Your task to perform on an android device: Search for flights from Seoul to Mexico city Image 0: 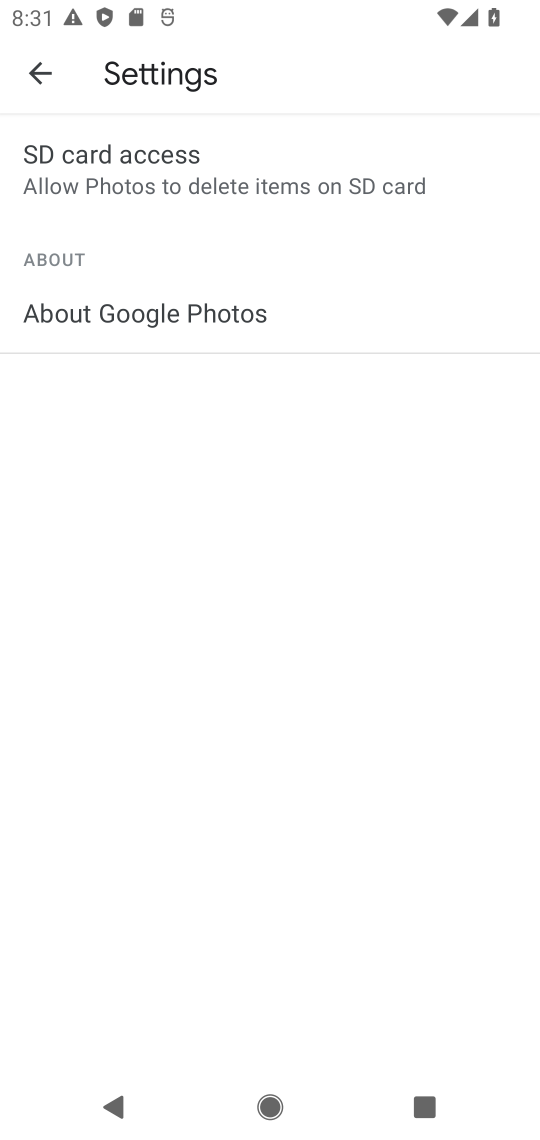
Step 0: press home button
Your task to perform on an android device: Search for flights from Seoul to Mexico city Image 1: 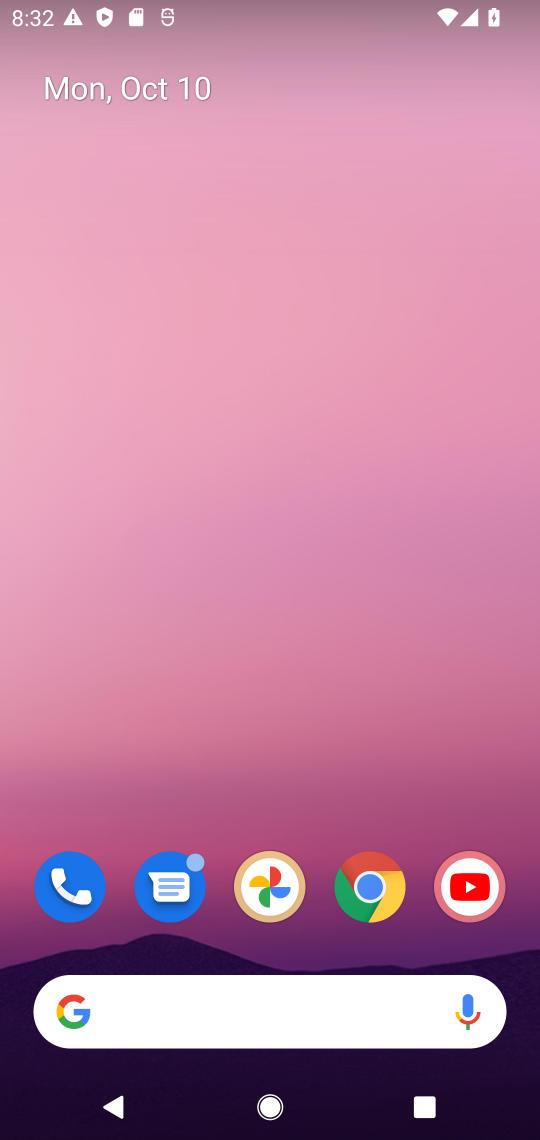
Step 1: click (375, 907)
Your task to perform on an android device: Search for flights from Seoul to Mexico city Image 2: 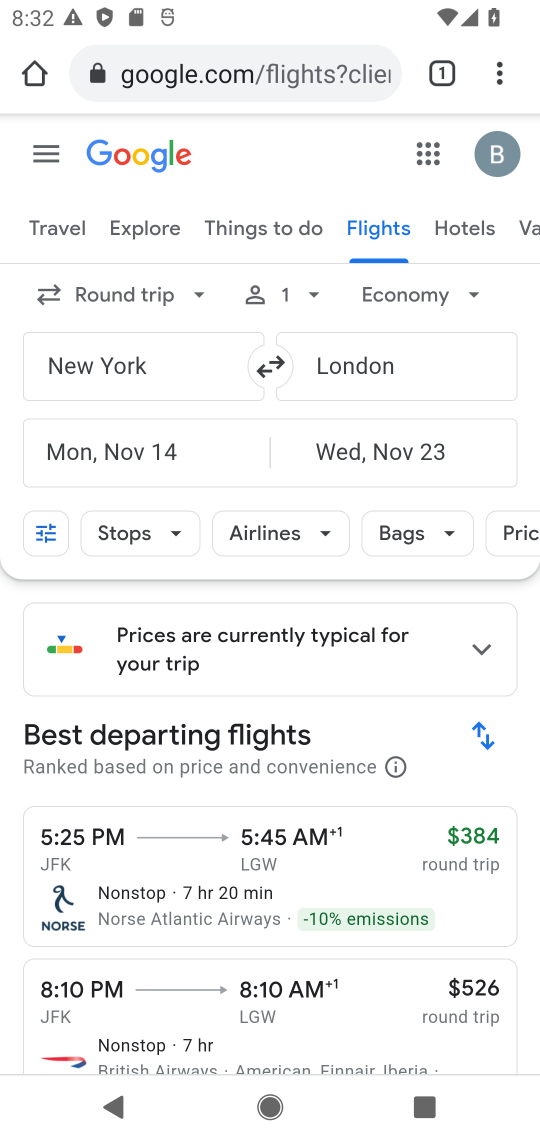
Step 2: click (282, 69)
Your task to perform on an android device: Search for flights from Seoul to Mexico city Image 3: 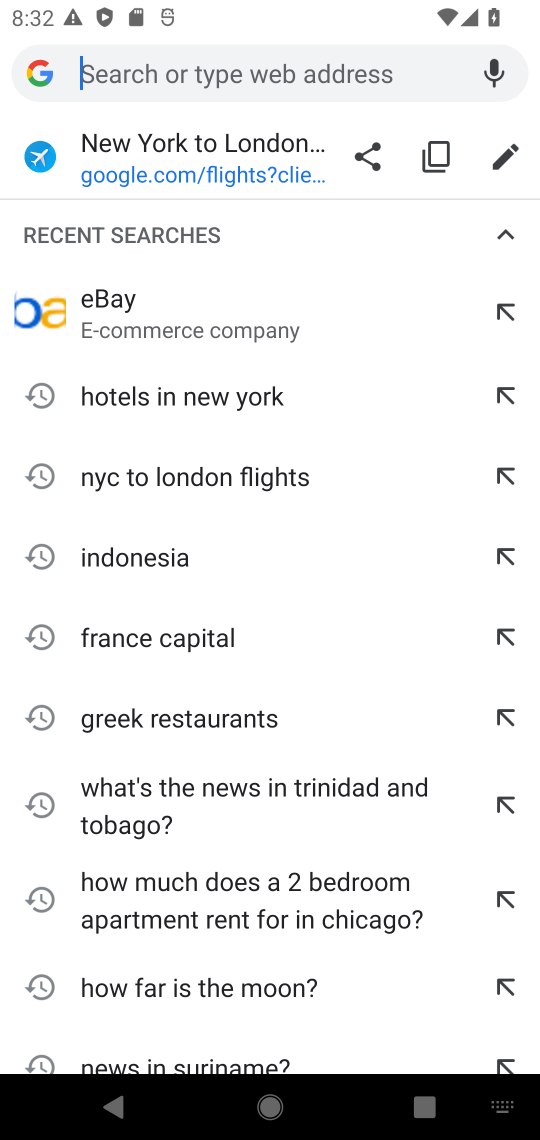
Step 3: type "seoul to mexico city flights"
Your task to perform on an android device: Search for flights from Seoul to Mexico city Image 4: 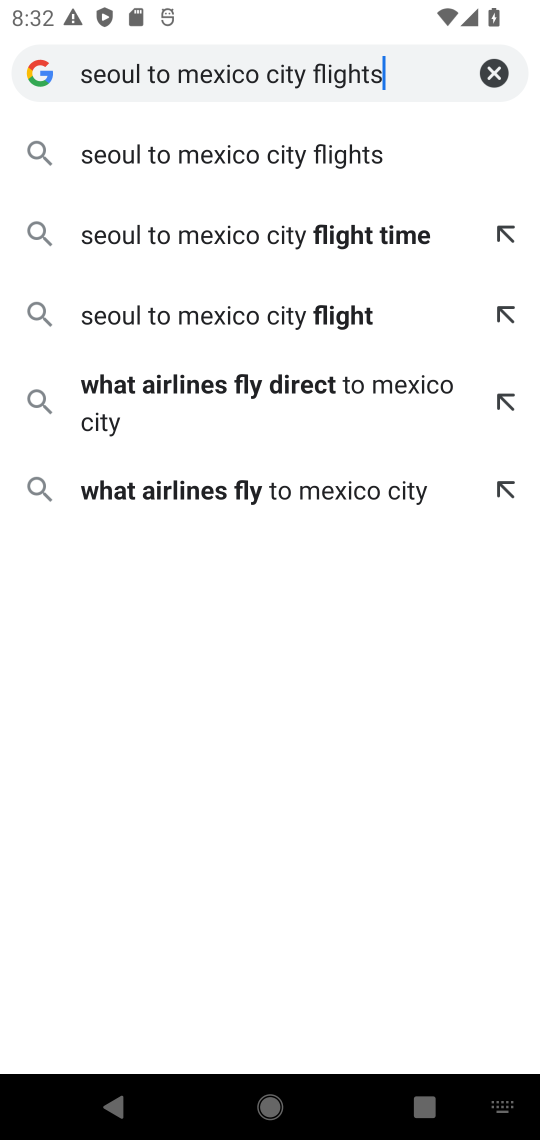
Step 4: click (390, 148)
Your task to perform on an android device: Search for flights from Seoul to Mexico city Image 5: 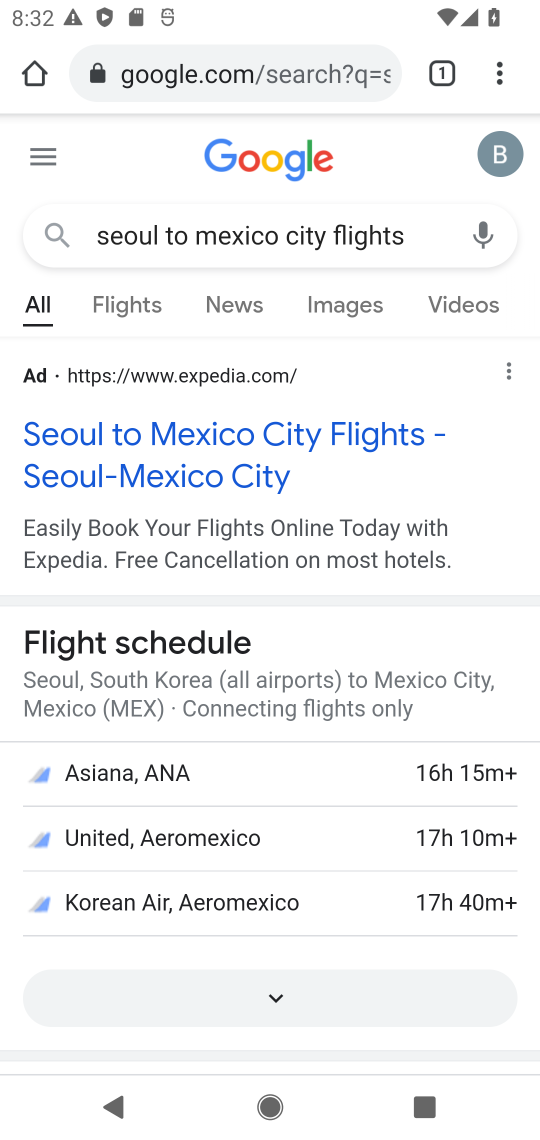
Step 5: drag from (304, 738) to (220, 333)
Your task to perform on an android device: Search for flights from Seoul to Mexico city Image 6: 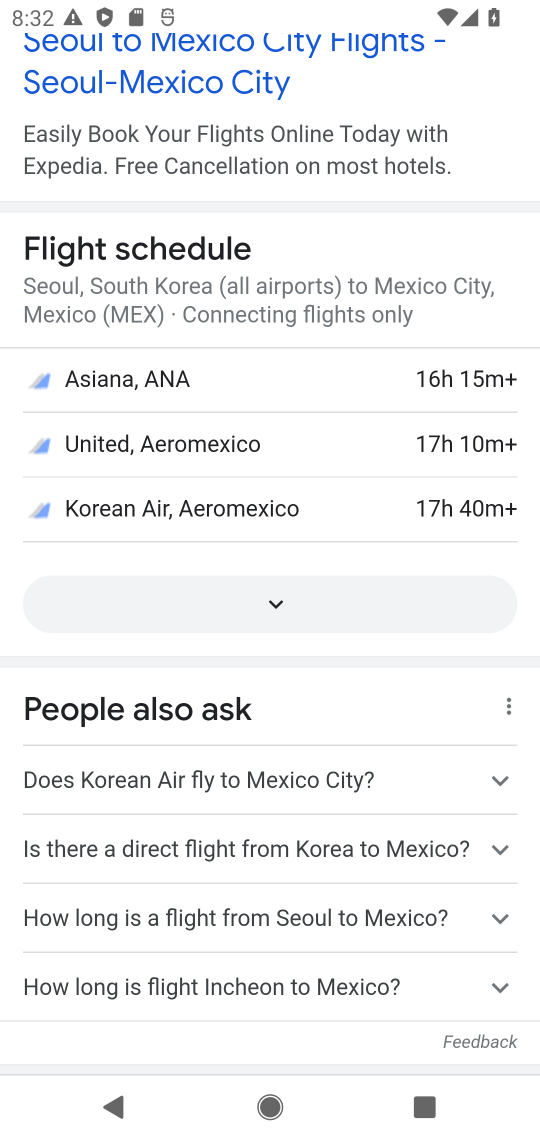
Step 6: drag from (314, 613) to (324, 678)
Your task to perform on an android device: Search for flights from Seoul to Mexico city Image 7: 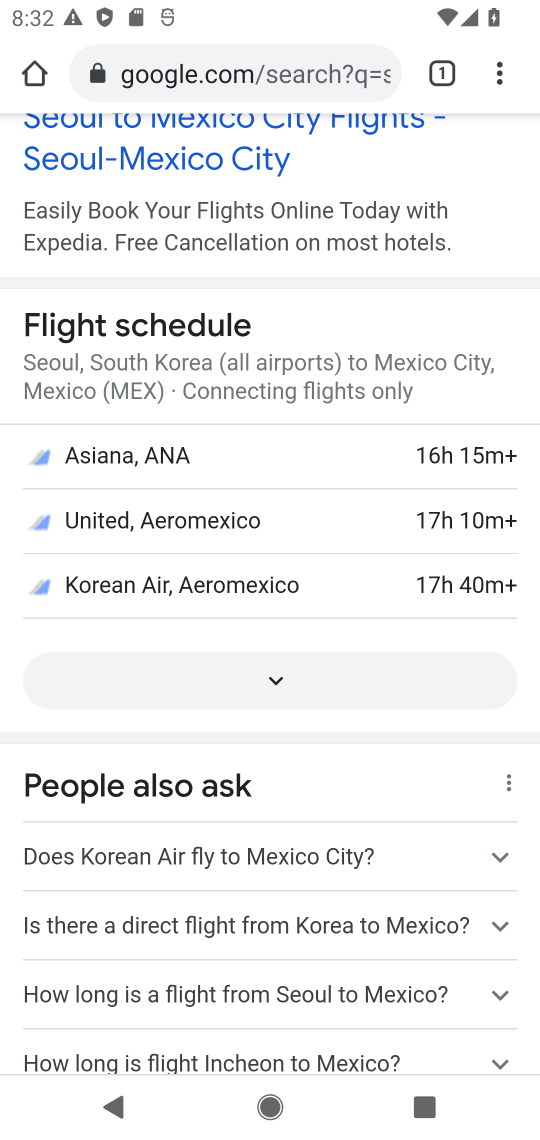
Step 7: click (294, 680)
Your task to perform on an android device: Search for flights from Seoul to Mexico city Image 8: 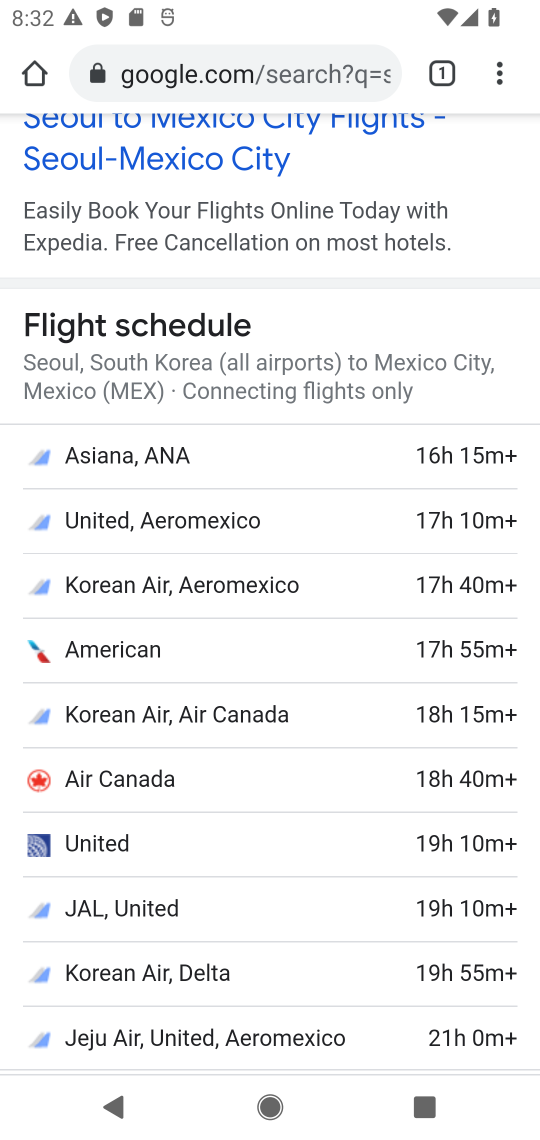
Step 8: task complete